Your task to perform on an android device: open app "Microsoft Excel" (install if not already installed) Image 0: 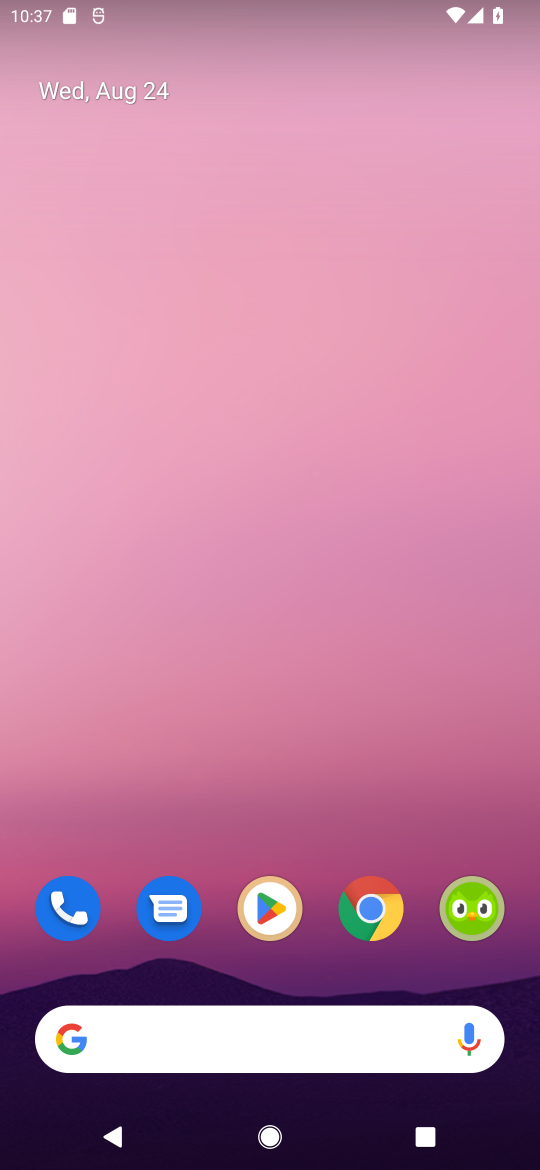
Step 0: click (276, 918)
Your task to perform on an android device: open app "Microsoft Excel" (install if not already installed) Image 1: 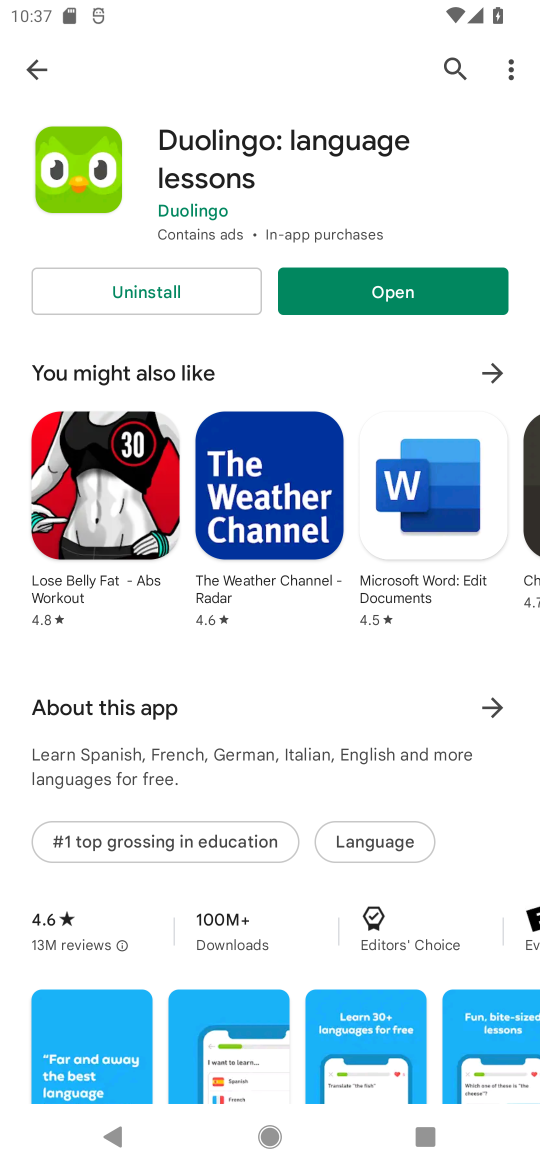
Step 1: click (28, 50)
Your task to perform on an android device: open app "Microsoft Excel" (install if not already installed) Image 2: 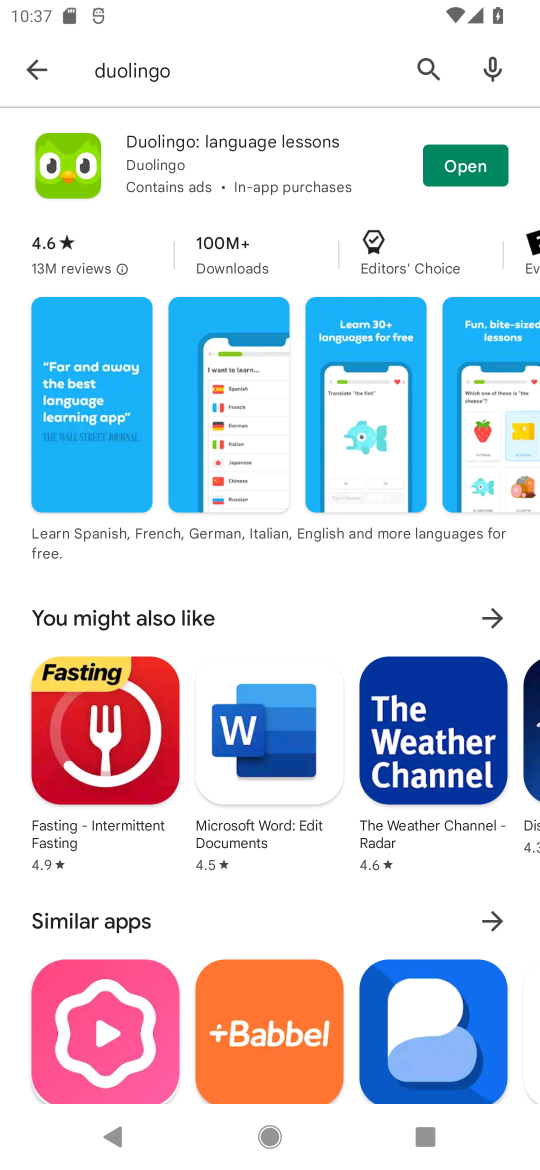
Step 2: click (422, 72)
Your task to perform on an android device: open app "Microsoft Excel" (install if not already installed) Image 3: 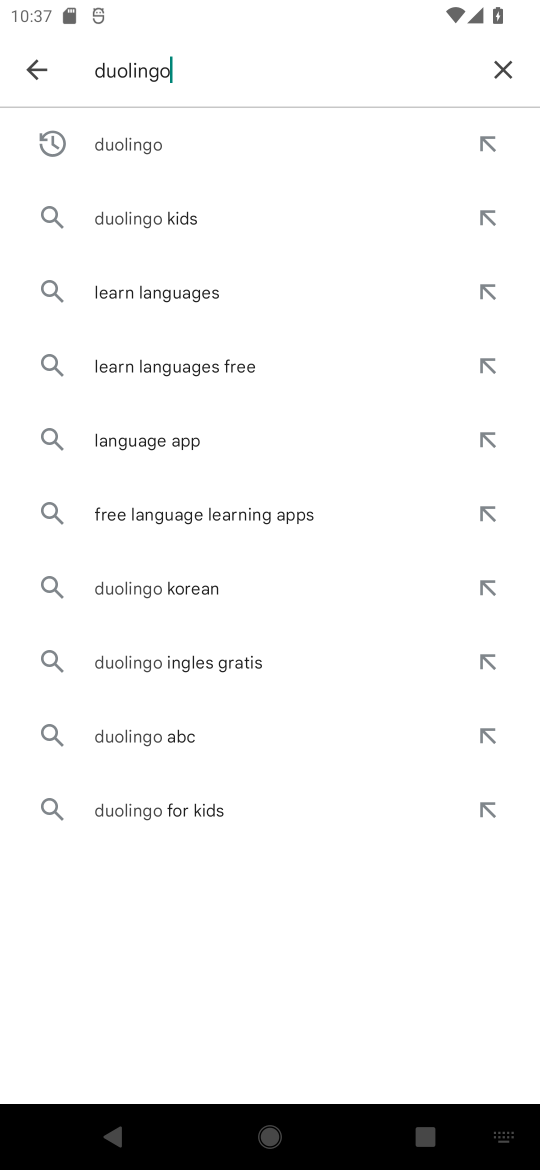
Step 3: click (504, 74)
Your task to perform on an android device: open app "Microsoft Excel" (install if not already installed) Image 4: 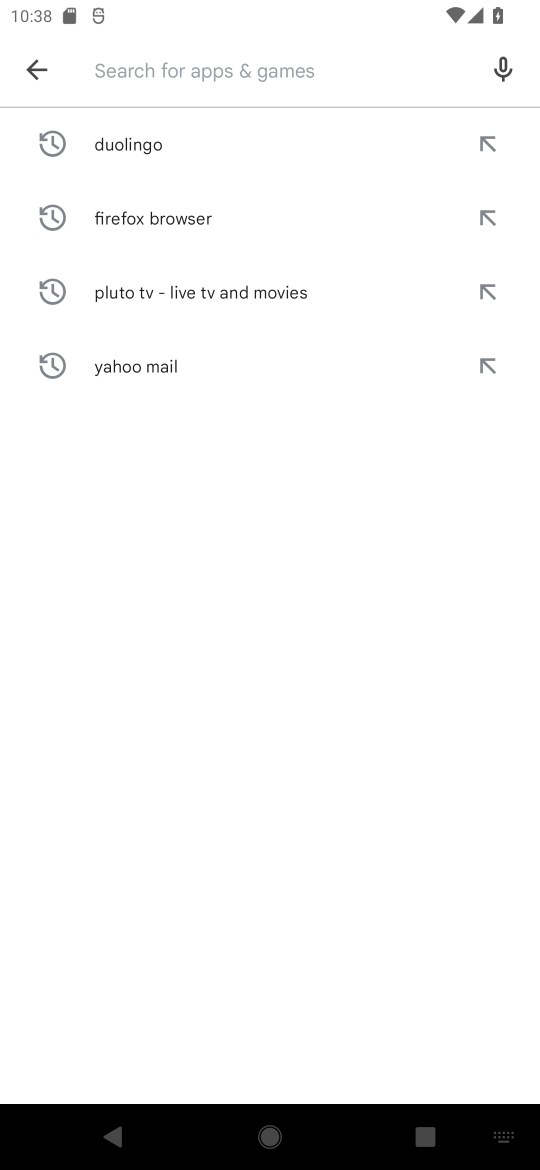
Step 4: type "Microsoft Excel"
Your task to perform on an android device: open app "Microsoft Excel" (install if not already installed) Image 5: 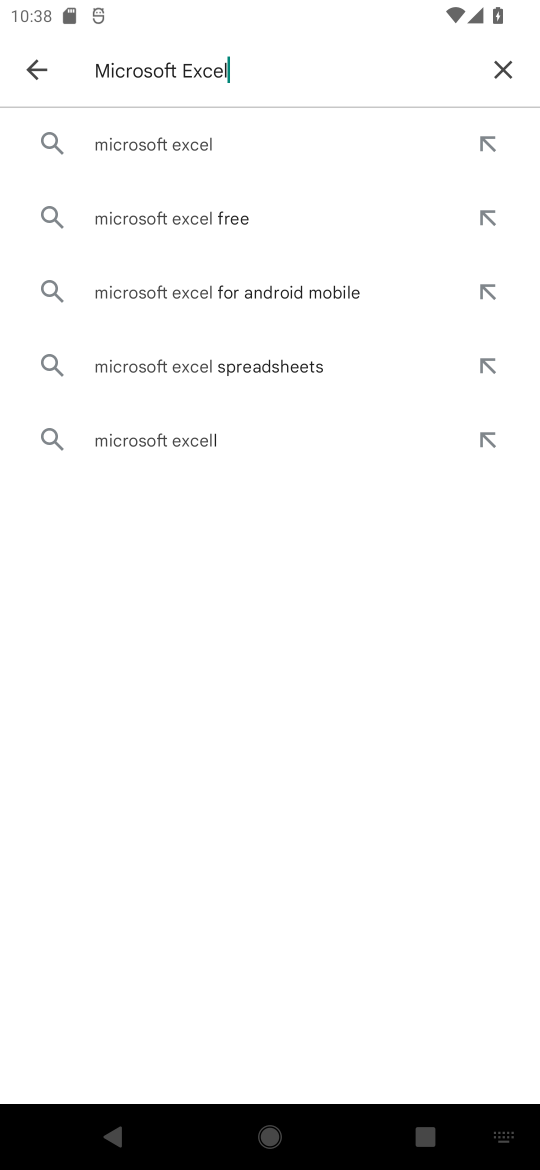
Step 5: click (155, 150)
Your task to perform on an android device: open app "Microsoft Excel" (install if not already installed) Image 6: 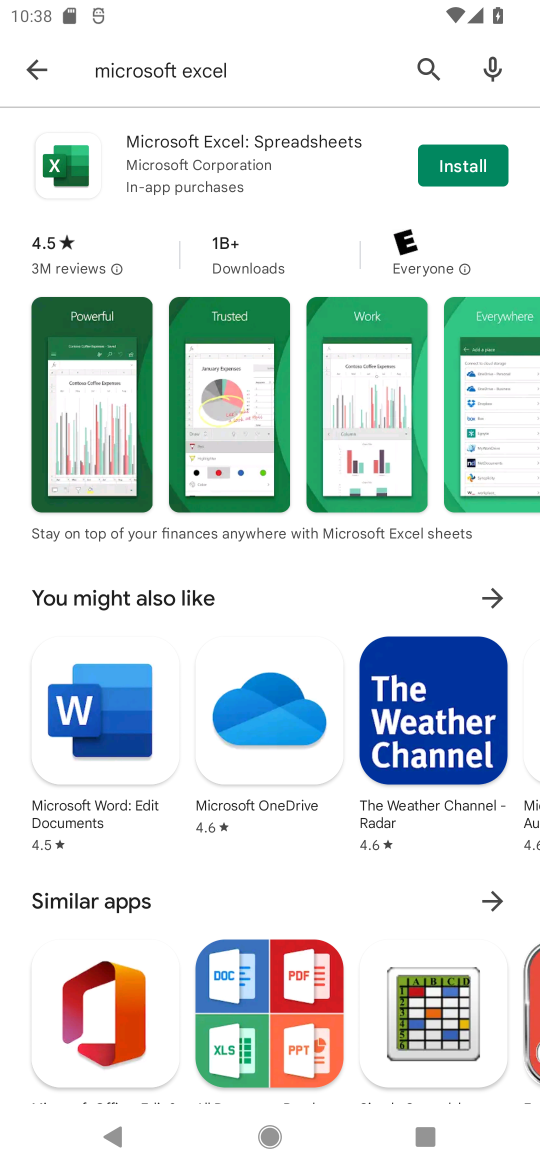
Step 6: click (457, 150)
Your task to perform on an android device: open app "Microsoft Excel" (install if not already installed) Image 7: 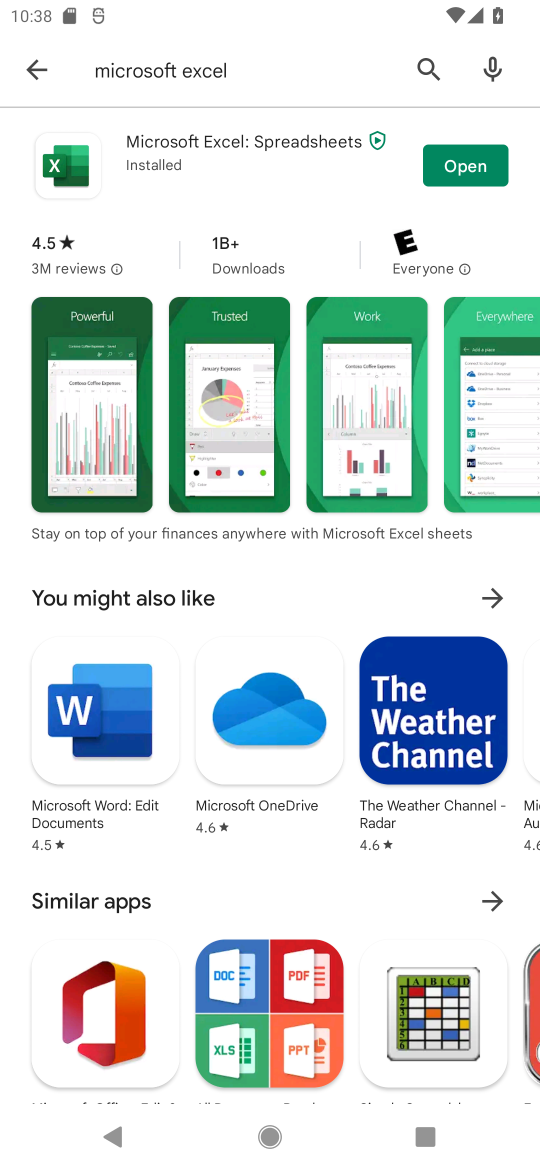
Step 7: click (457, 150)
Your task to perform on an android device: open app "Microsoft Excel" (install if not already installed) Image 8: 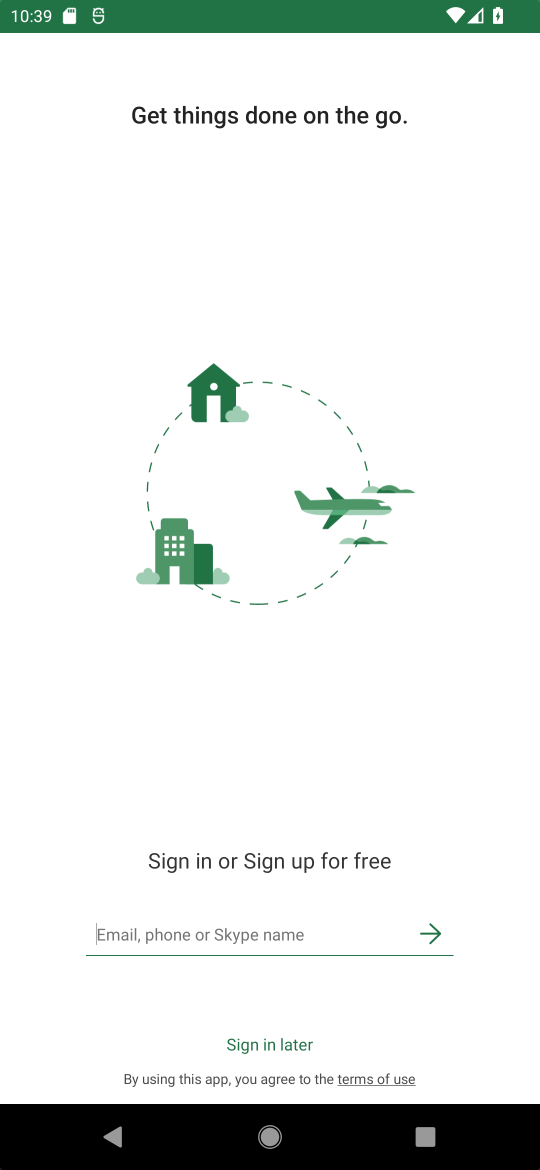
Step 8: task complete